Your task to perform on an android device: Open ESPN.com Image 0: 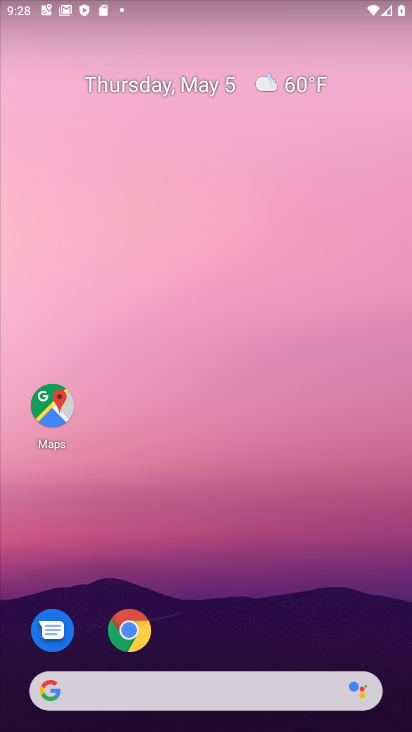
Step 0: click (129, 622)
Your task to perform on an android device: Open ESPN.com Image 1: 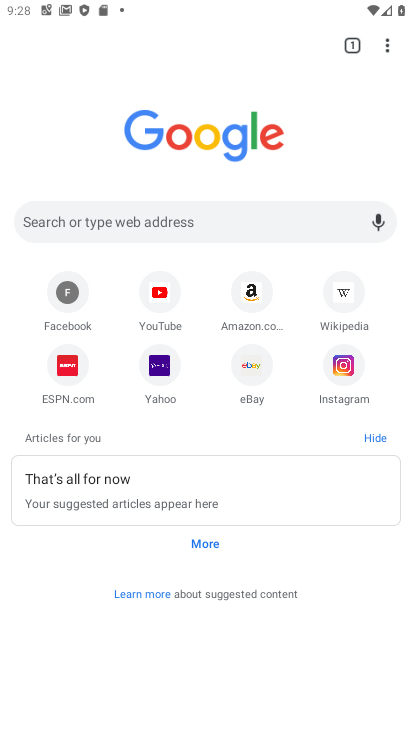
Step 1: click (190, 225)
Your task to perform on an android device: Open ESPN.com Image 2: 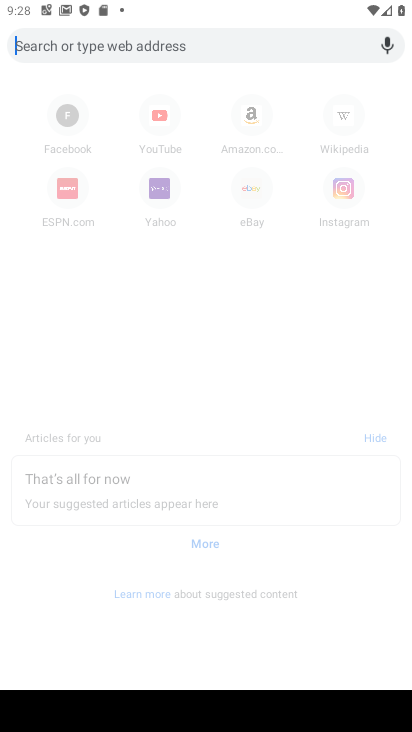
Step 2: click (61, 207)
Your task to perform on an android device: Open ESPN.com Image 3: 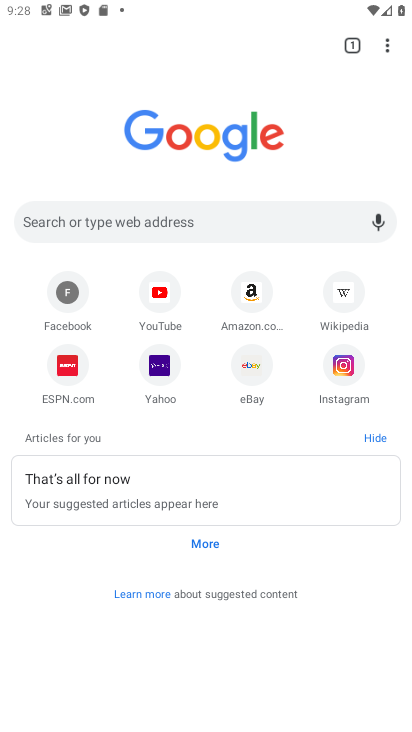
Step 3: click (63, 379)
Your task to perform on an android device: Open ESPN.com Image 4: 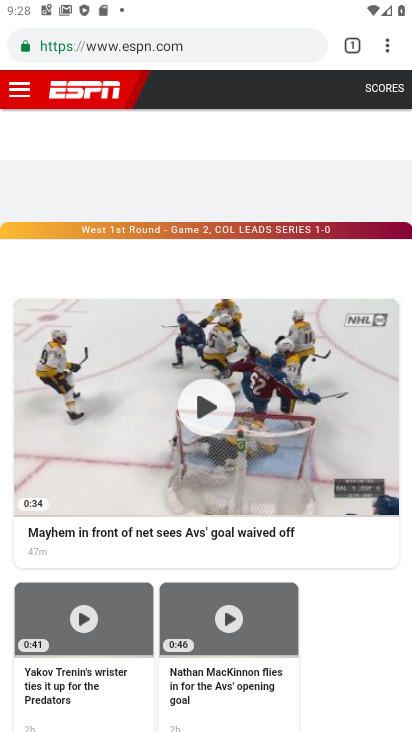
Step 4: task complete